Your task to perform on an android device: Clear all items from cart on newegg. Search for "sony triple a" on newegg, select the first entry, add it to the cart, then select checkout. Image 0: 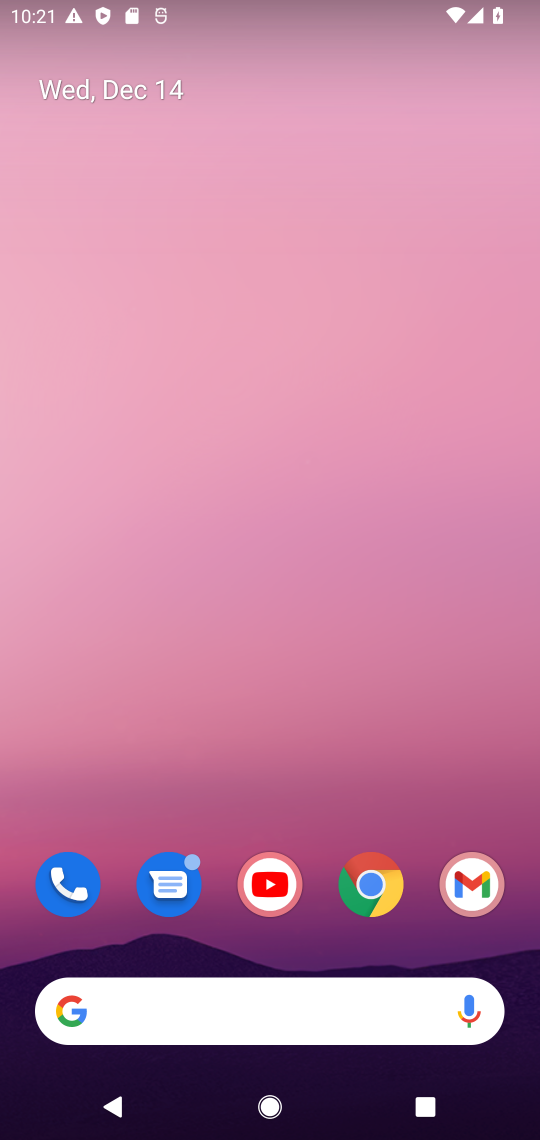
Step 0: click (380, 901)
Your task to perform on an android device: Clear all items from cart on newegg. Search for "sony triple a" on newegg, select the first entry, add it to the cart, then select checkout. Image 1: 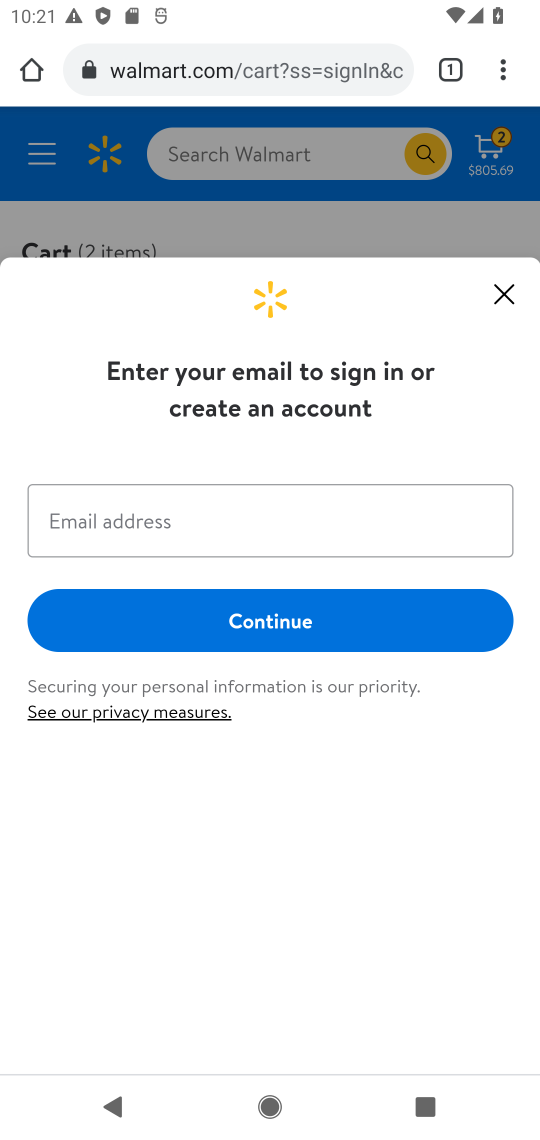
Step 1: click (346, 66)
Your task to perform on an android device: Clear all items from cart on newegg. Search for "sony triple a" on newegg, select the first entry, add it to the cart, then select checkout. Image 2: 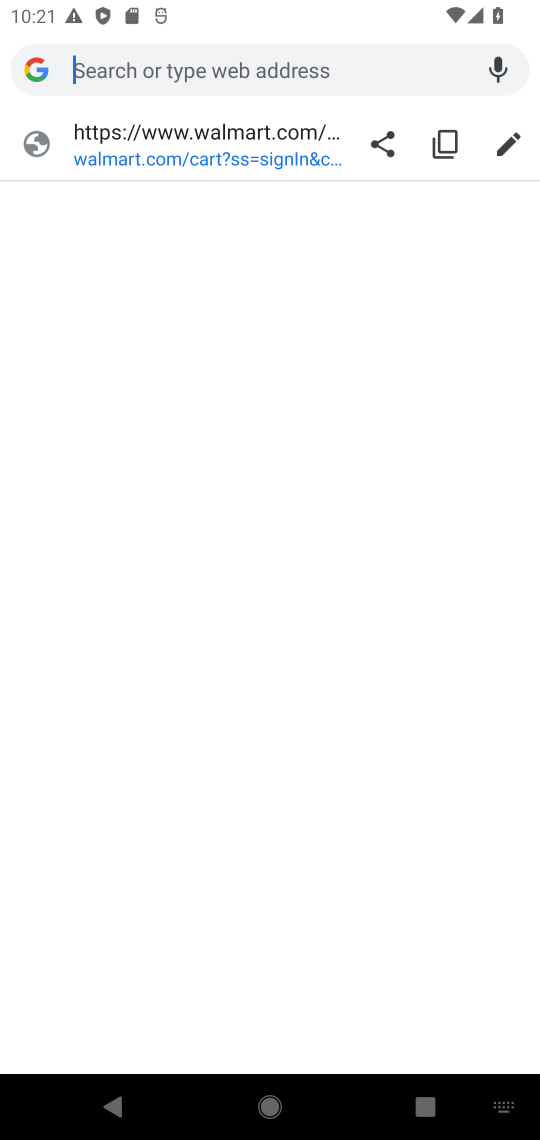
Step 2: press enter
Your task to perform on an android device: Clear all items from cart on newegg. Search for "sony triple a" on newegg, select the first entry, add it to the cart, then select checkout. Image 3: 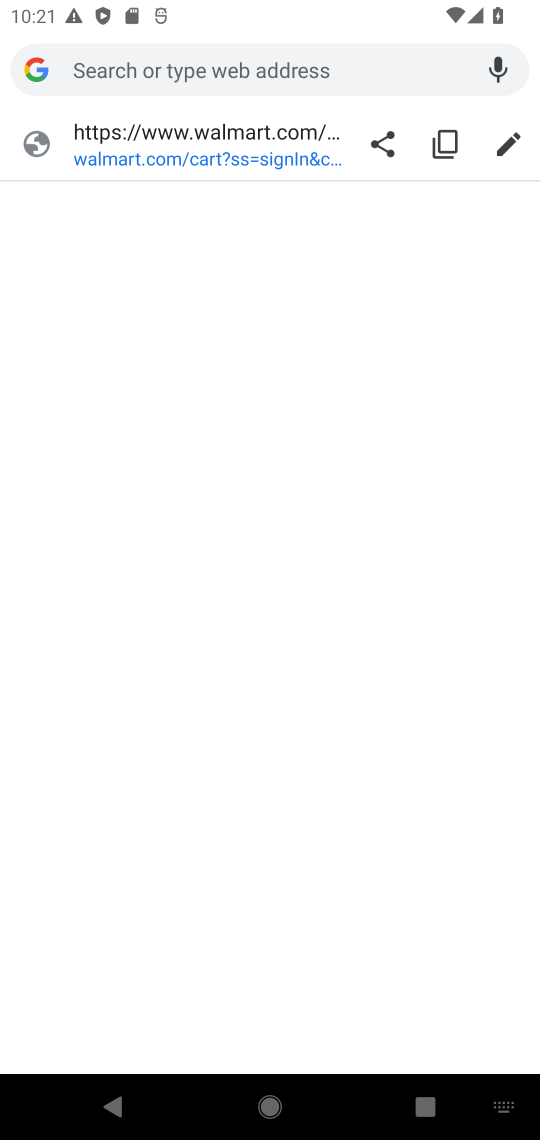
Step 3: type "newegg"
Your task to perform on an android device: Clear all items from cart on newegg. Search for "sony triple a" on newegg, select the first entry, add it to the cart, then select checkout. Image 4: 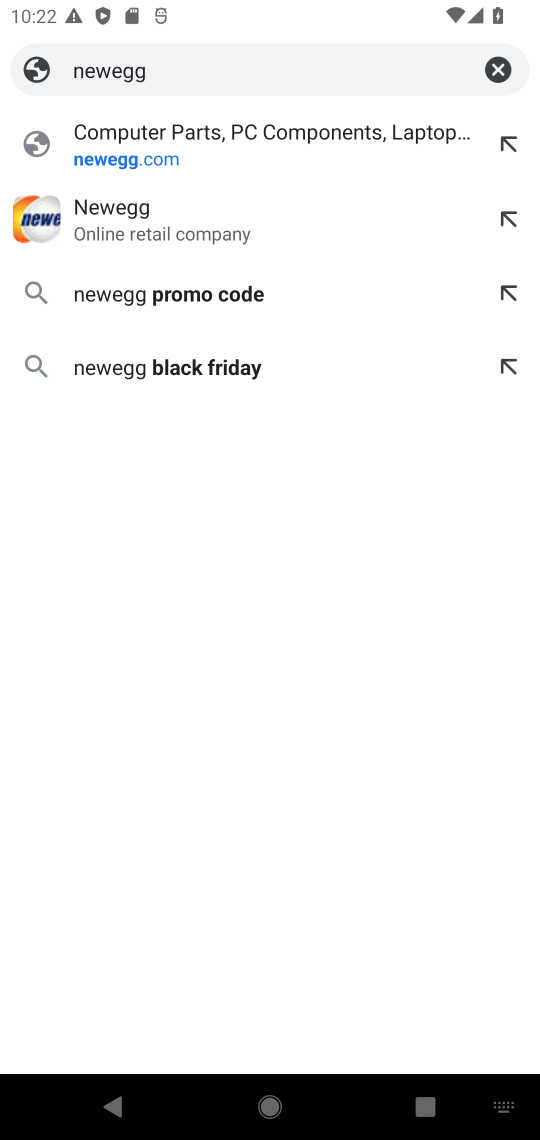
Step 4: click (416, 80)
Your task to perform on an android device: Clear all items from cart on newegg. Search for "sony triple a" on newegg, select the first entry, add it to the cart, then select checkout. Image 5: 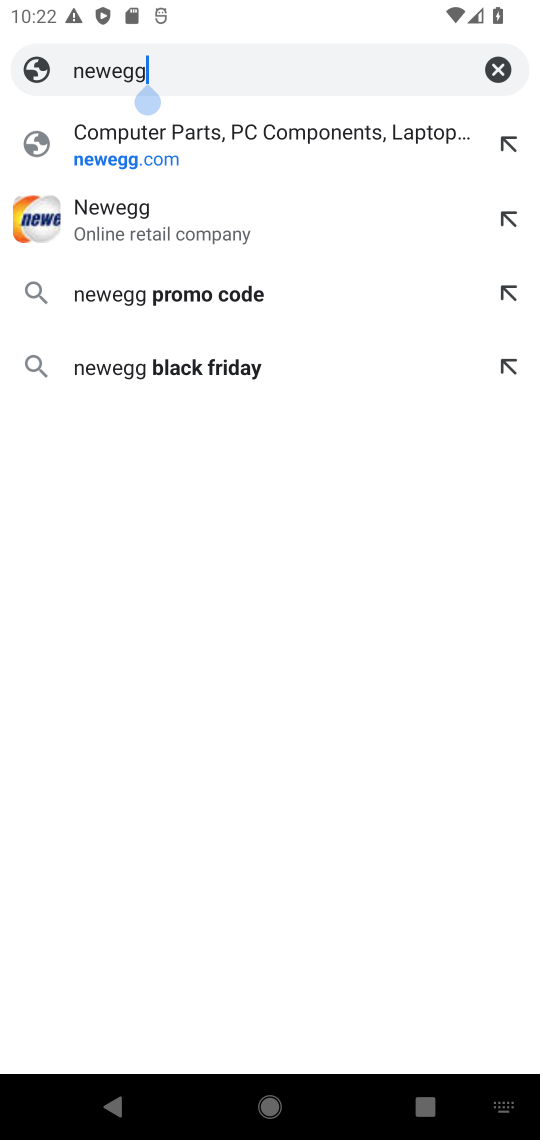
Step 5: press enter
Your task to perform on an android device: Clear all items from cart on newegg. Search for "sony triple a" on newegg, select the first entry, add it to the cart, then select checkout. Image 6: 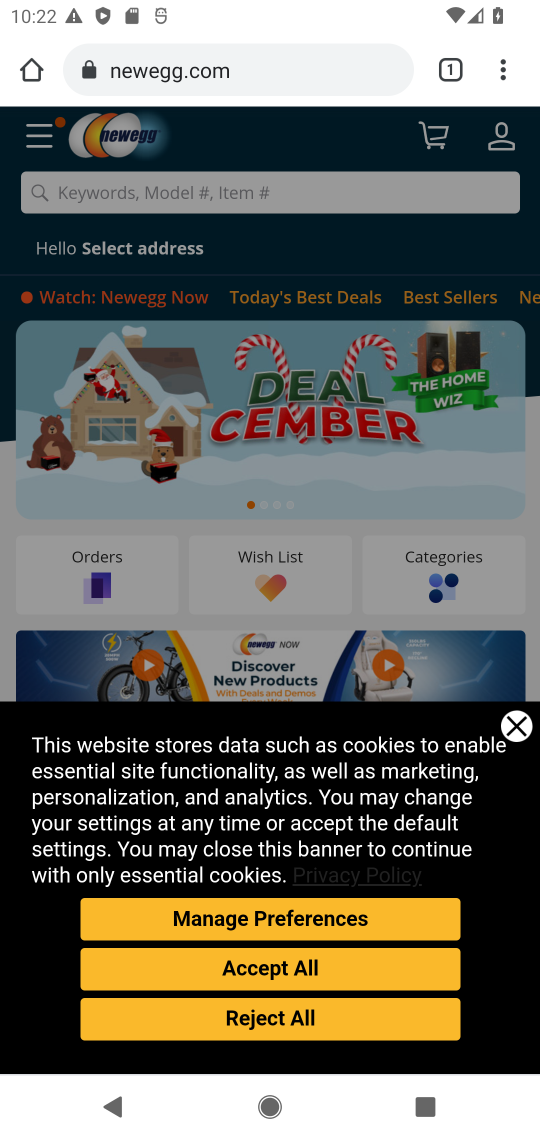
Step 6: click (307, 968)
Your task to perform on an android device: Clear all items from cart on newegg. Search for "sony triple a" on newegg, select the first entry, add it to the cart, then select checkout. Image 7: 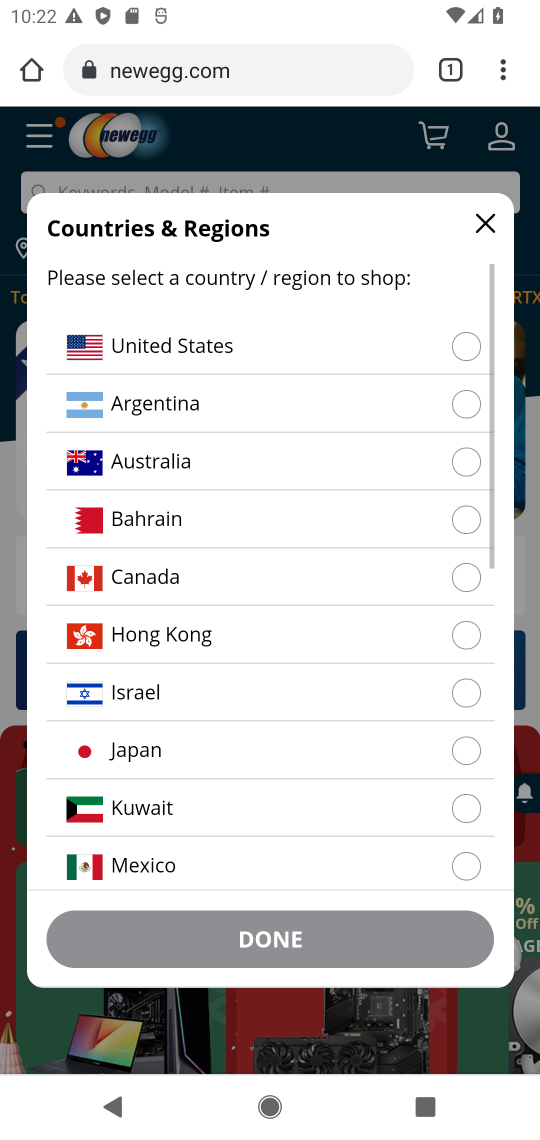
Step 7: click (466, 348)
Your task to perform on an android device: Clear all items from cart on newegg. Search for "sony triple a" on newegg, select the first entry, add it to the cart, then select checkout. Image 8: 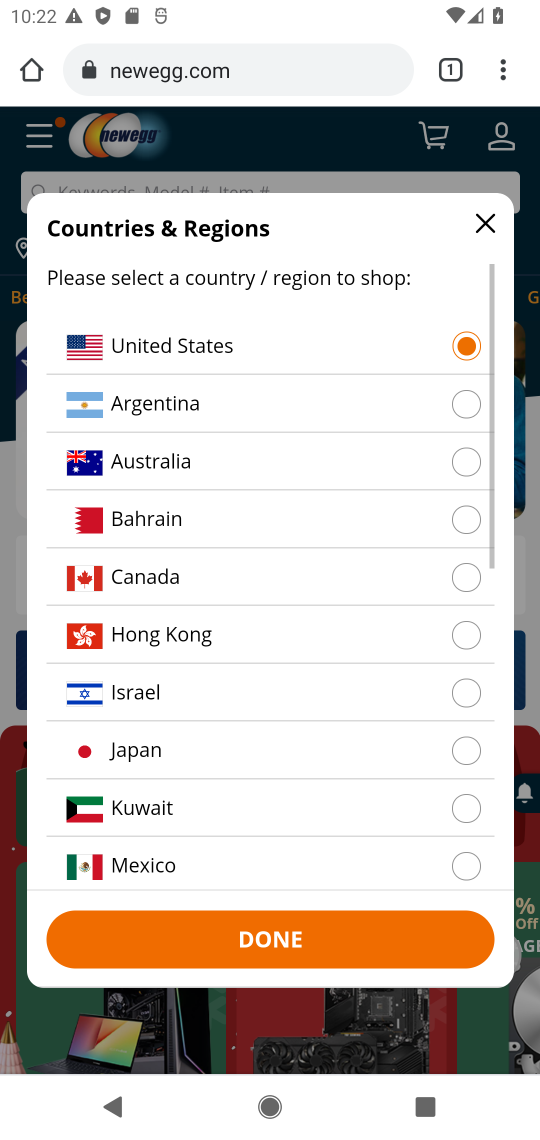
Step 8: click (278, 942)
Your task to perform on an android device: Clear all items from cart on newegg. Search for "sony triple a" on newegg, select the first entry, add it to the cart, then select checkout. Image 9: 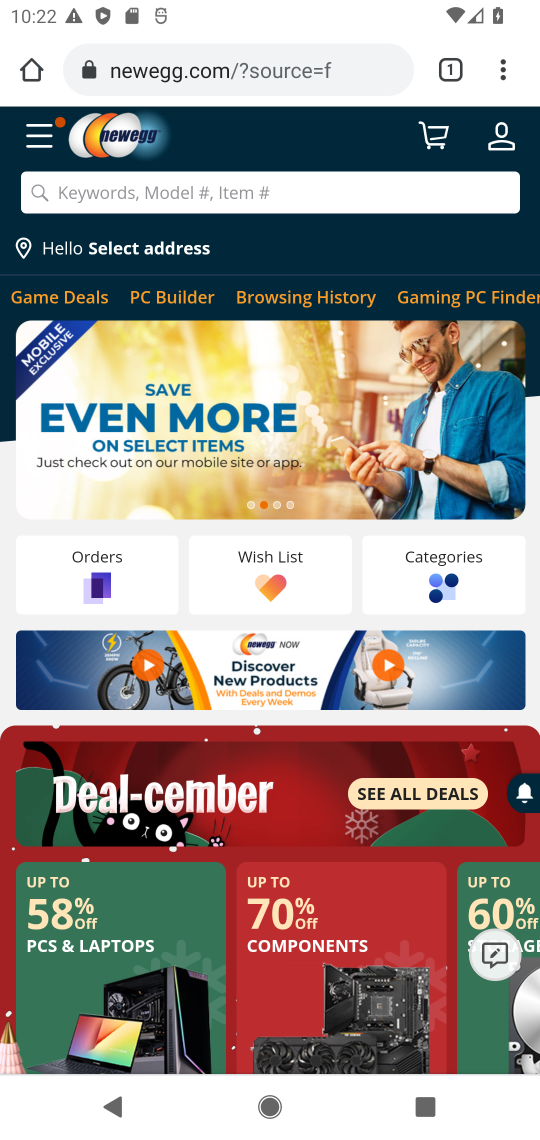
Step 9: click (433, 143)
Your task to perform on an android device: Clear all items from cart on newegg. Search for "sony triple a" on newegg, select the first entry, add it to the cart, then select checkout. Image 10: 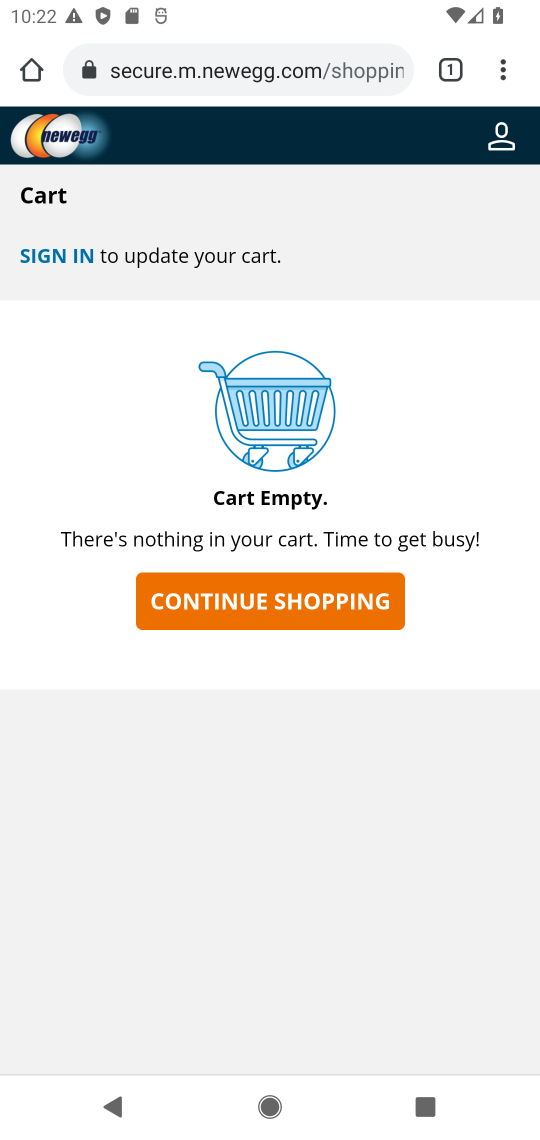
Step 10: press back button
Your task to perform on an android device: Clear all items from cart on newegg. Search for "sony triple a" on newegg, select the first entry, add it to the cart, then select checkout. Image 11: 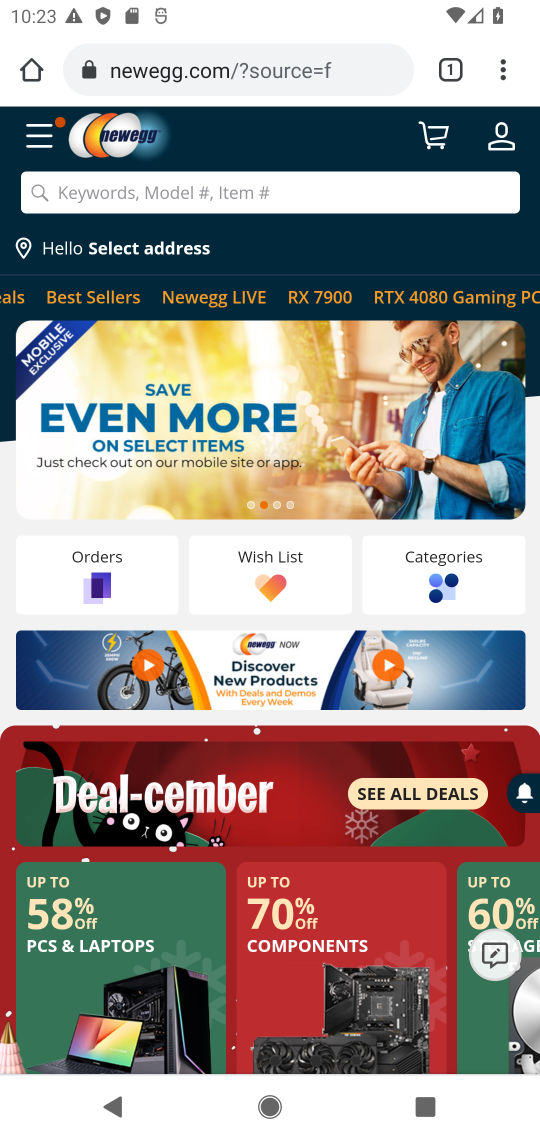
Step 11: click (357, 191)
Your task to perform on an android device: Clear all items from cart on newegg. Search for "sony triple a" on newegg, select the first entry, add it to the cart, then select checkout. Image 12: 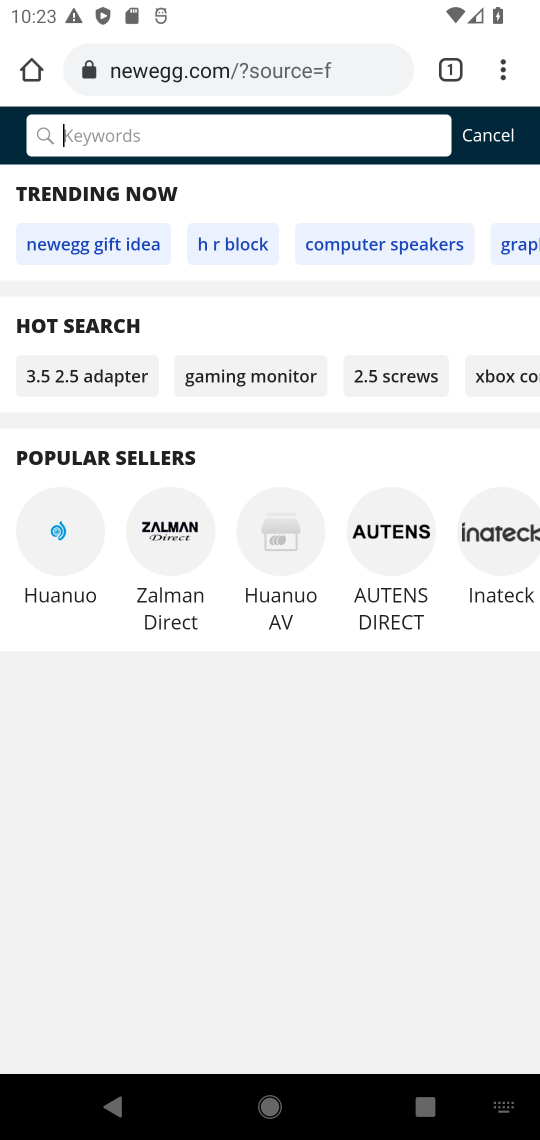
Step 12: press enter
Your task to perform on an android device: Clear all items from cart on newegg. Search for "sony triple a" on newegg, select the first entry, add it to the cart, then select checkout. Image 13: 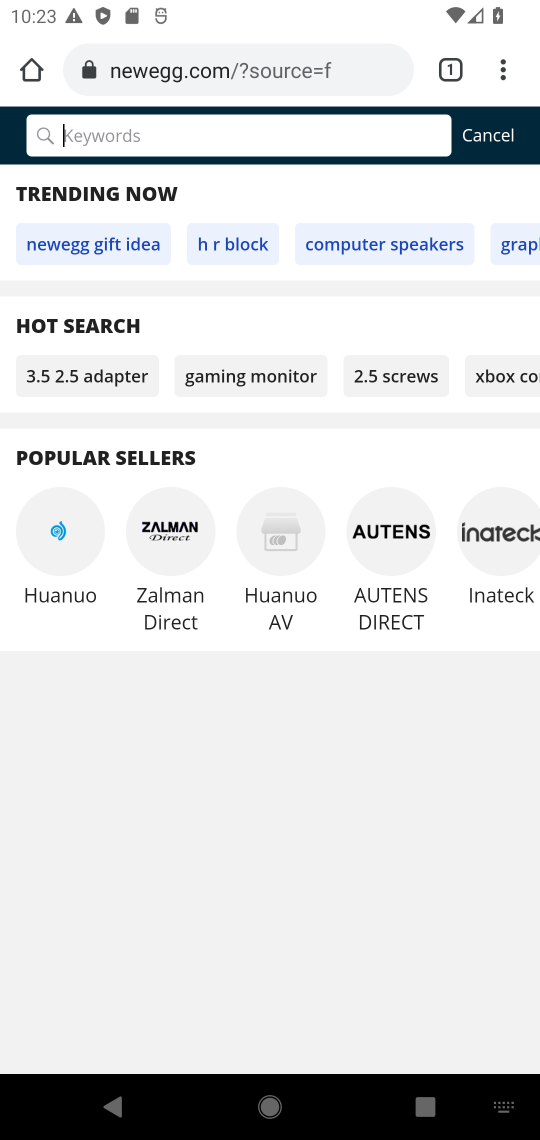
Step 13: type "sony triple a"
Your task to perform on an android device: Clear all items from cart on newegg. Search for "sony triple a" on newegg, select the first entry, add it to the cart, then select checkout. Image 14: 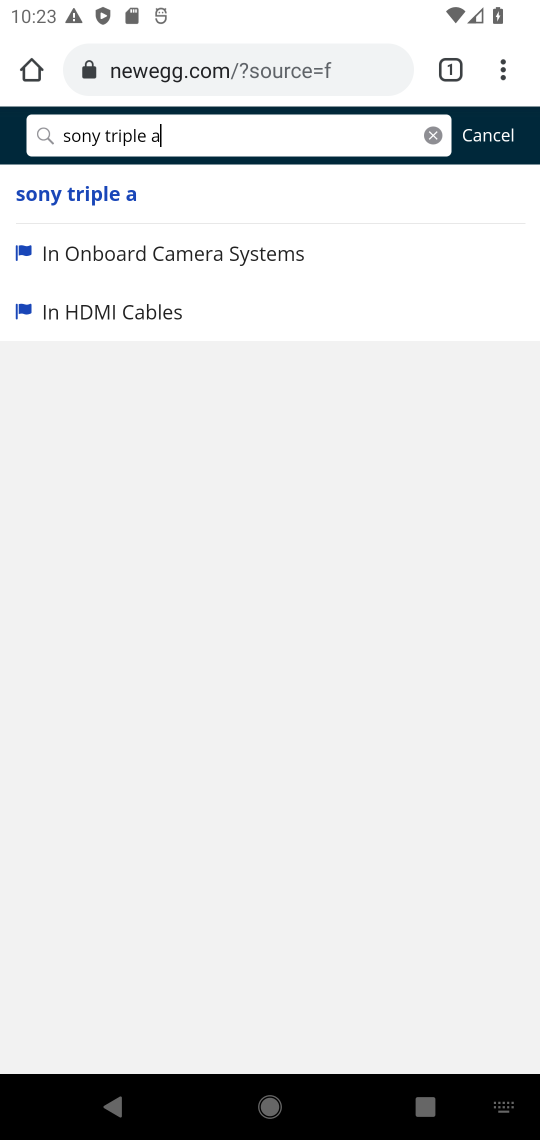
Step 14: click (325, 145)
Your task to perform on an android device: Clear all items from cart on newegg. Search for "sony triple a" on newegg, select the first entry, add it to the cart, then select checkout. Image 15: 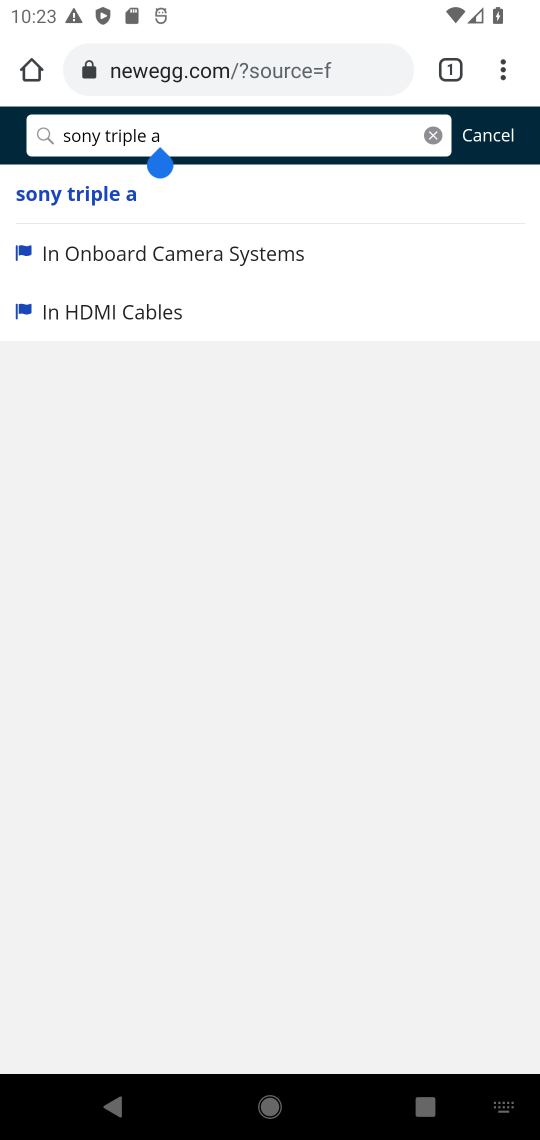
Step 15: click (346, 126)
Your task to perform on an android device: Clear all items from cart on newegg. Search for "sony triple a" on newegg, select the first entry, add it to the cart, then select checkout. Image 16: 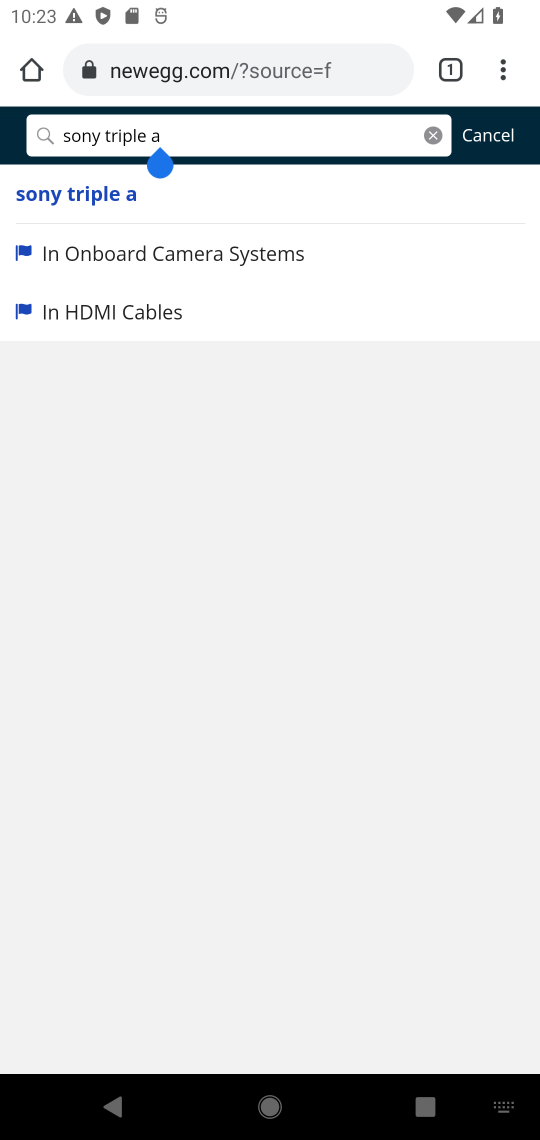
Step 16: click (391, 549)
Your task to perform on an android device: Clear all items from cart on newegg. Search for "sony triple a" on newegg, select the first entry, add it to the cart, then select checkout. Image 17: 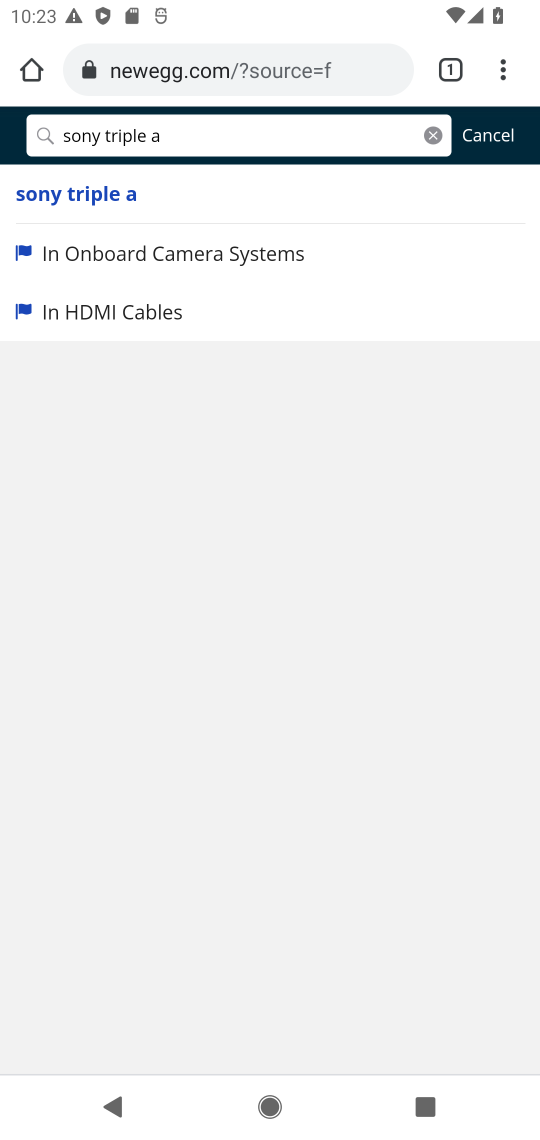
Step 17: click (49, 195)
Your task to perform on an android device: Clear all items from cart on newegg. Search for "sony triple a" on newegg, select the first entry, add it to the cart, then select checkout. Image 18: 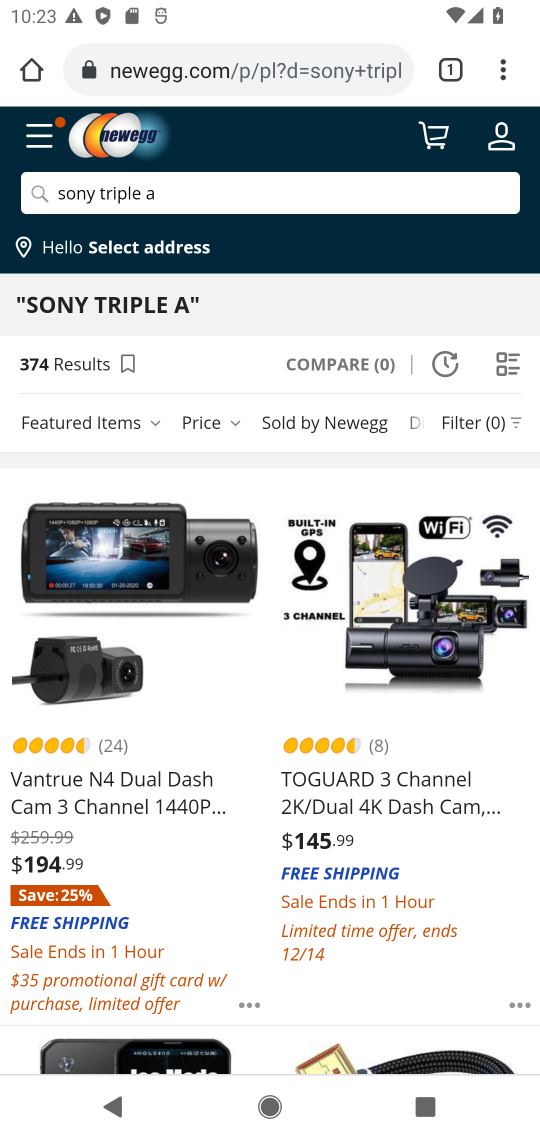
Step 18: task complete